Your task to perform on an android device: See recent photos Image 0: 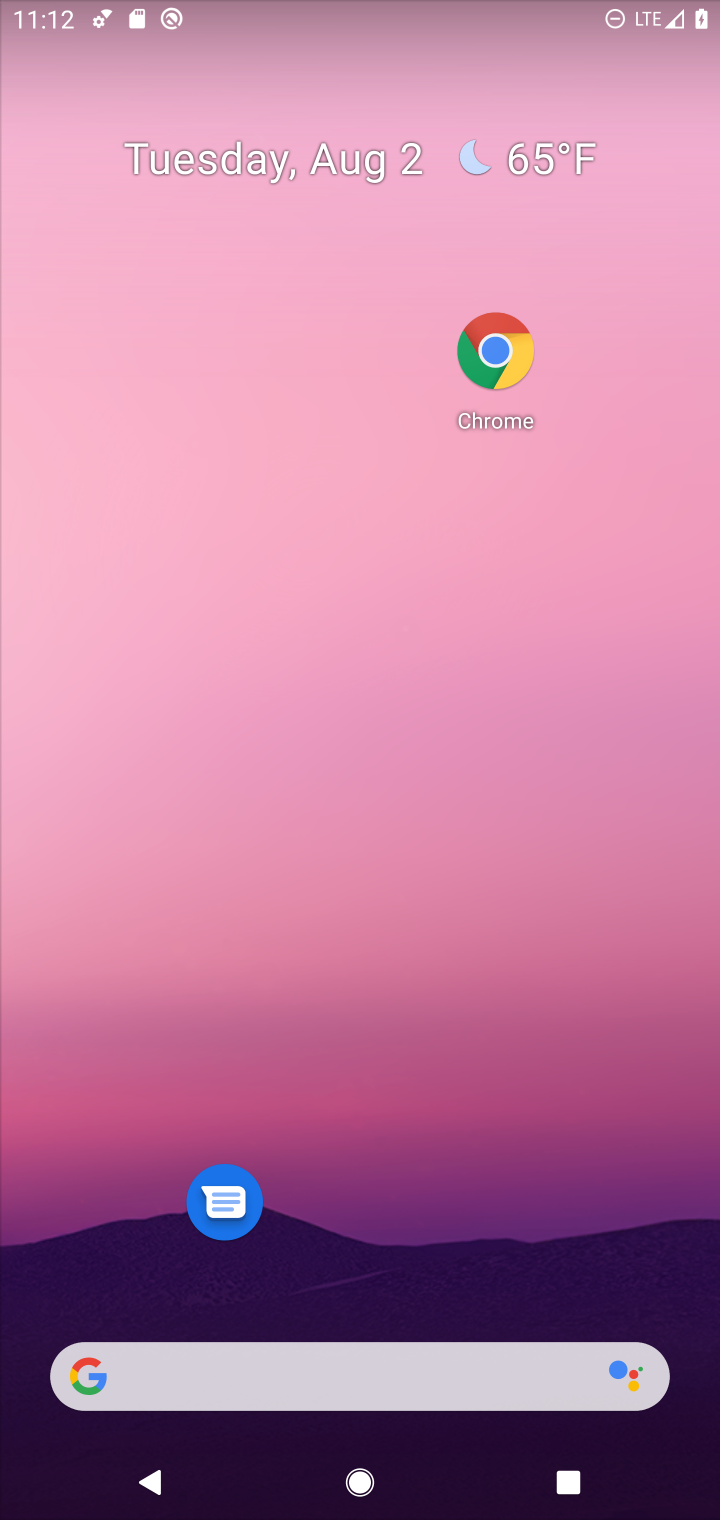
Step 0: press home button
Your task to perform on an android device: See recent photos Image 1: 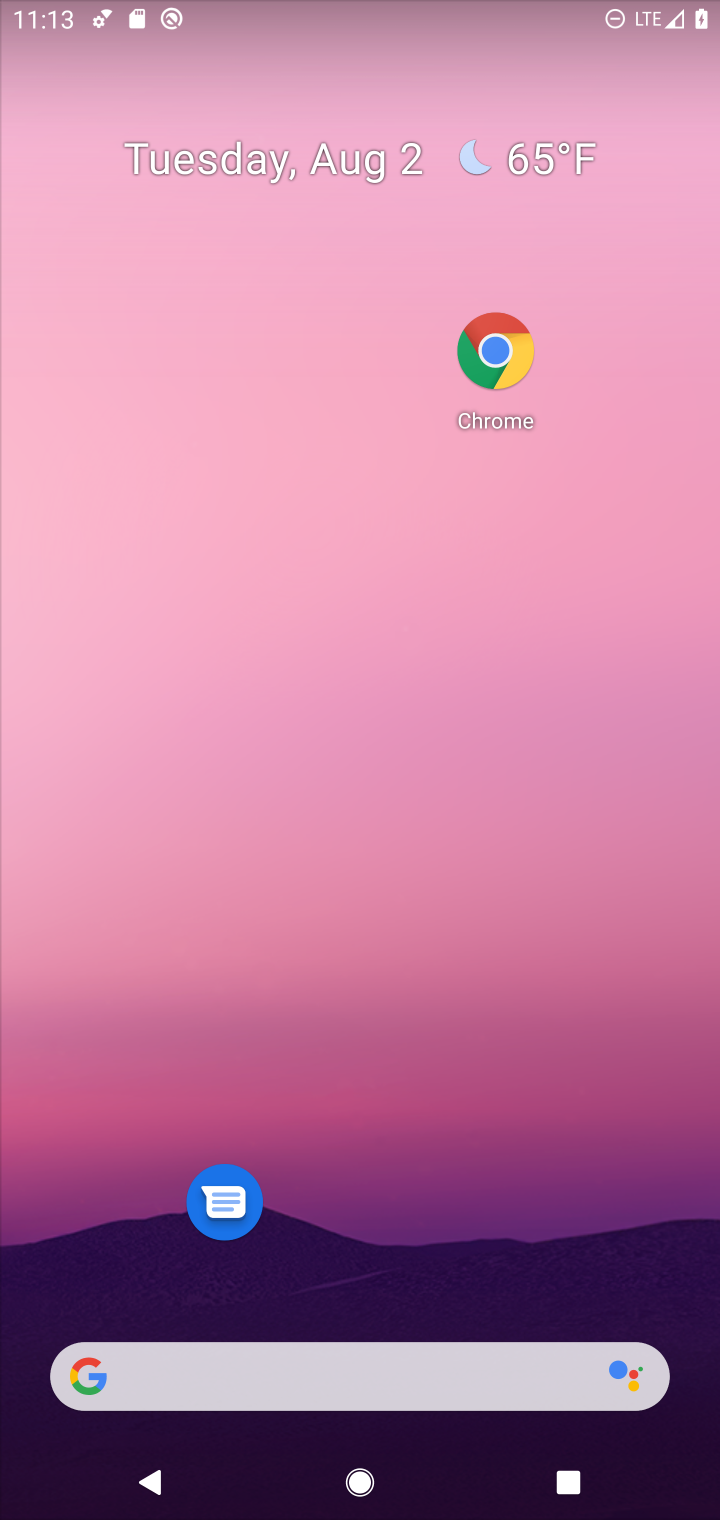
Step 1: drag from (389, 1068) to (396, 7)
Your task to perform on an android device: See recent photos Image 2: 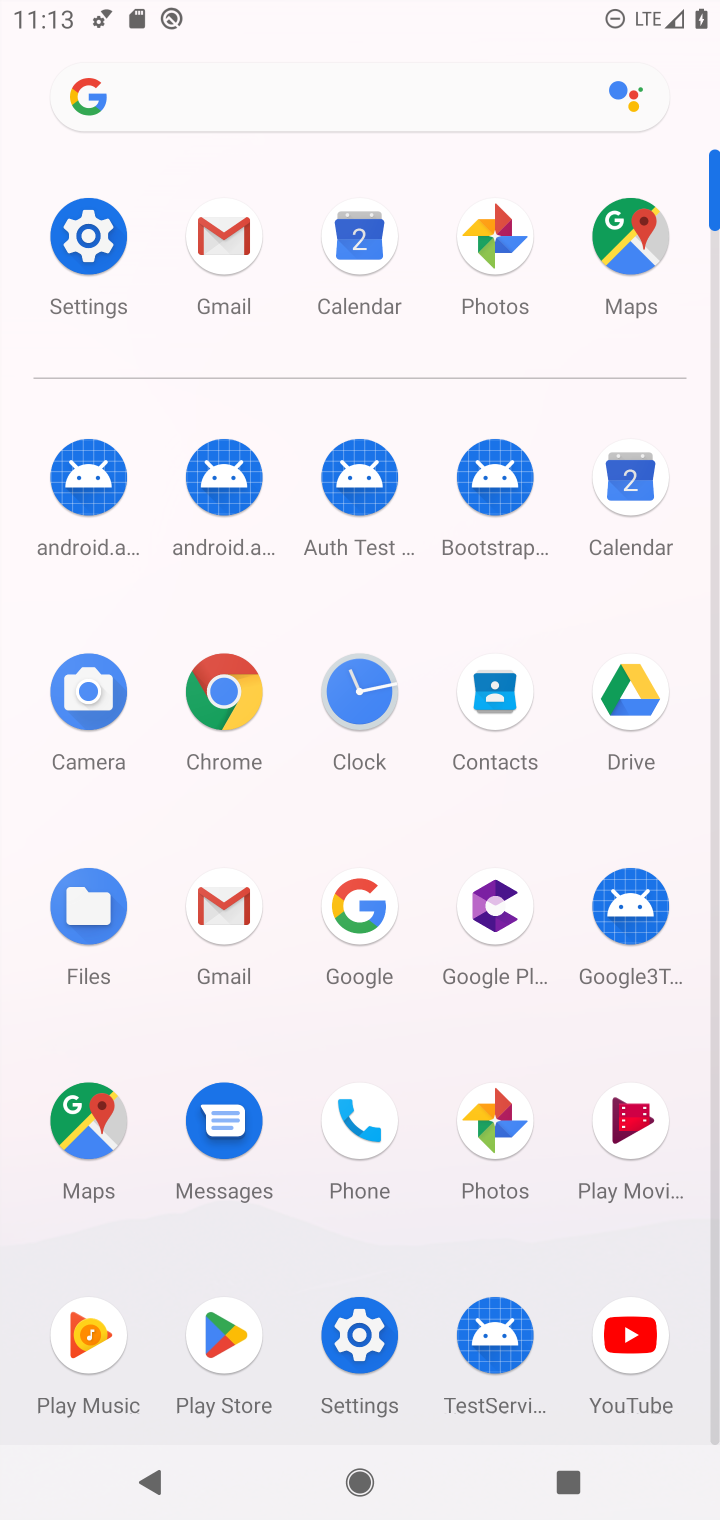
Step 2: click (496, 248)
Your task to perform on an android device: See recent photos Image 3: 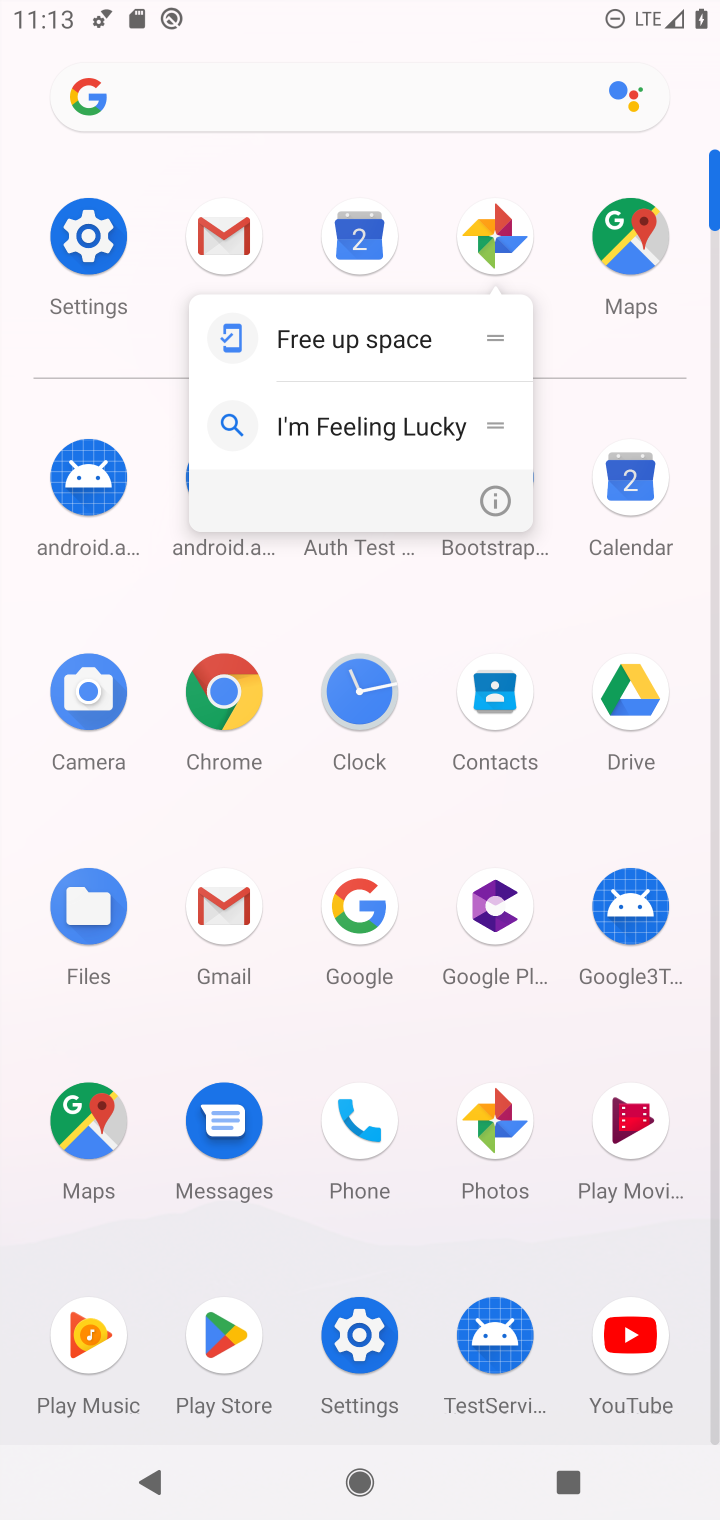
Step 3: click (496, 248)
Your task to perform on an android device: See recent photos Image 4: 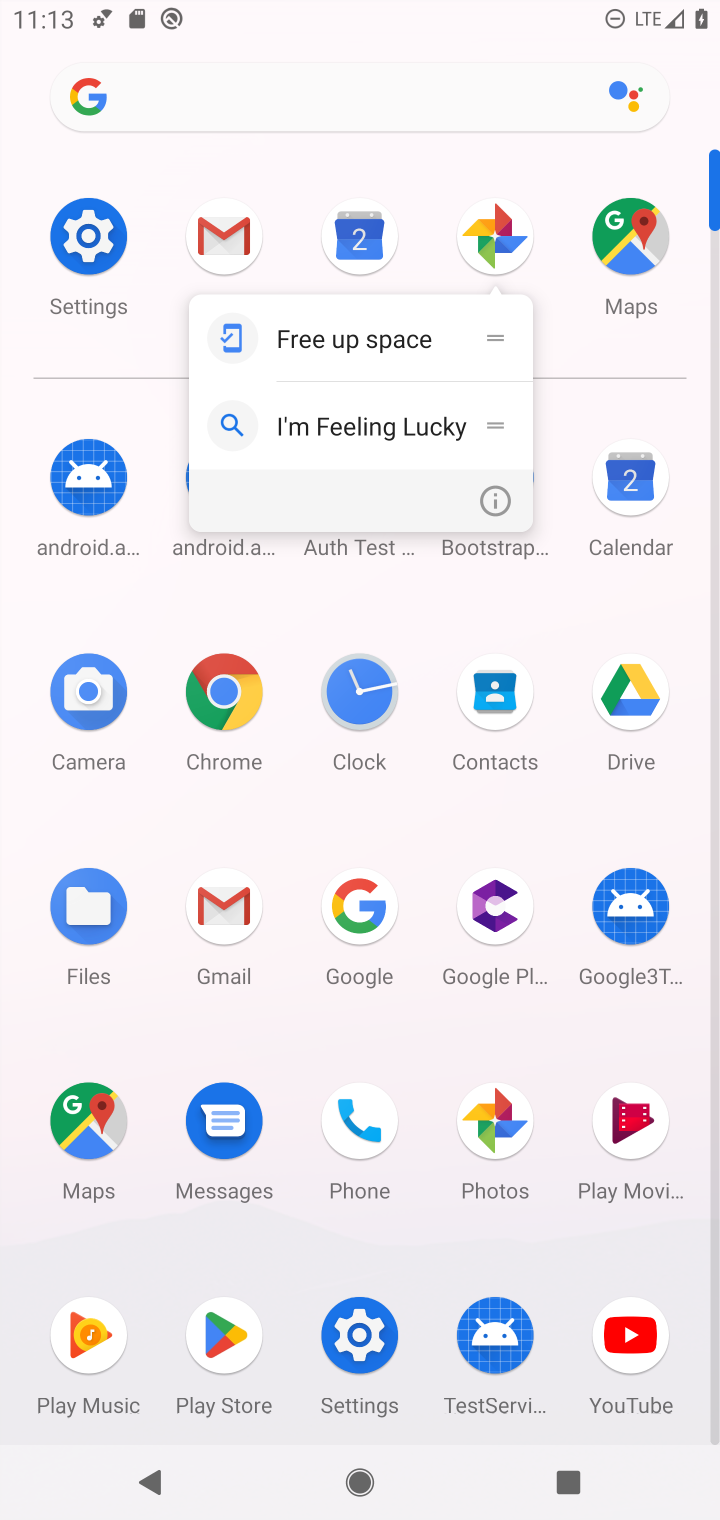
Step 4: click (496, 248)
Your task to perform on an android device: See recent photos Image 5: 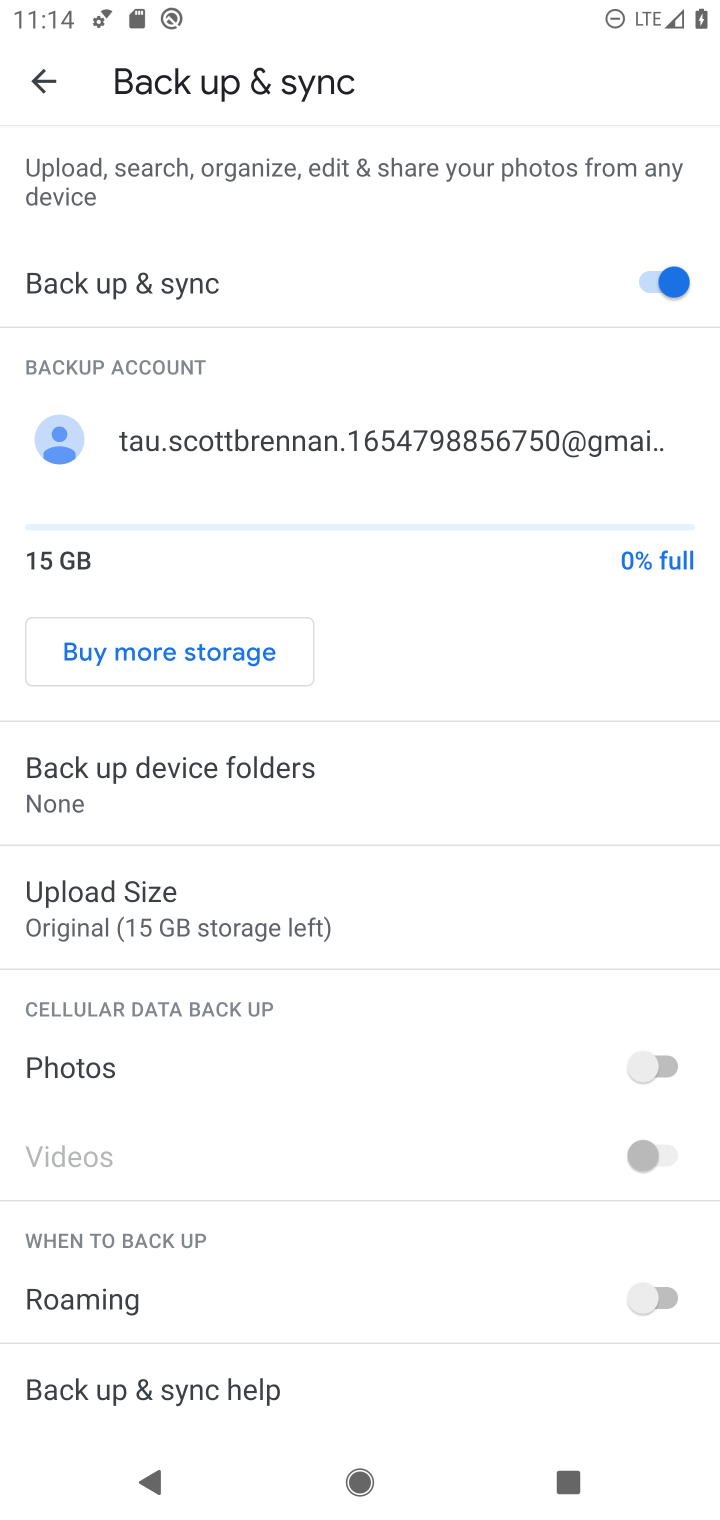
Step 5: click (45, 93)
Your task to perform on an android device: See recent photos Image 6: 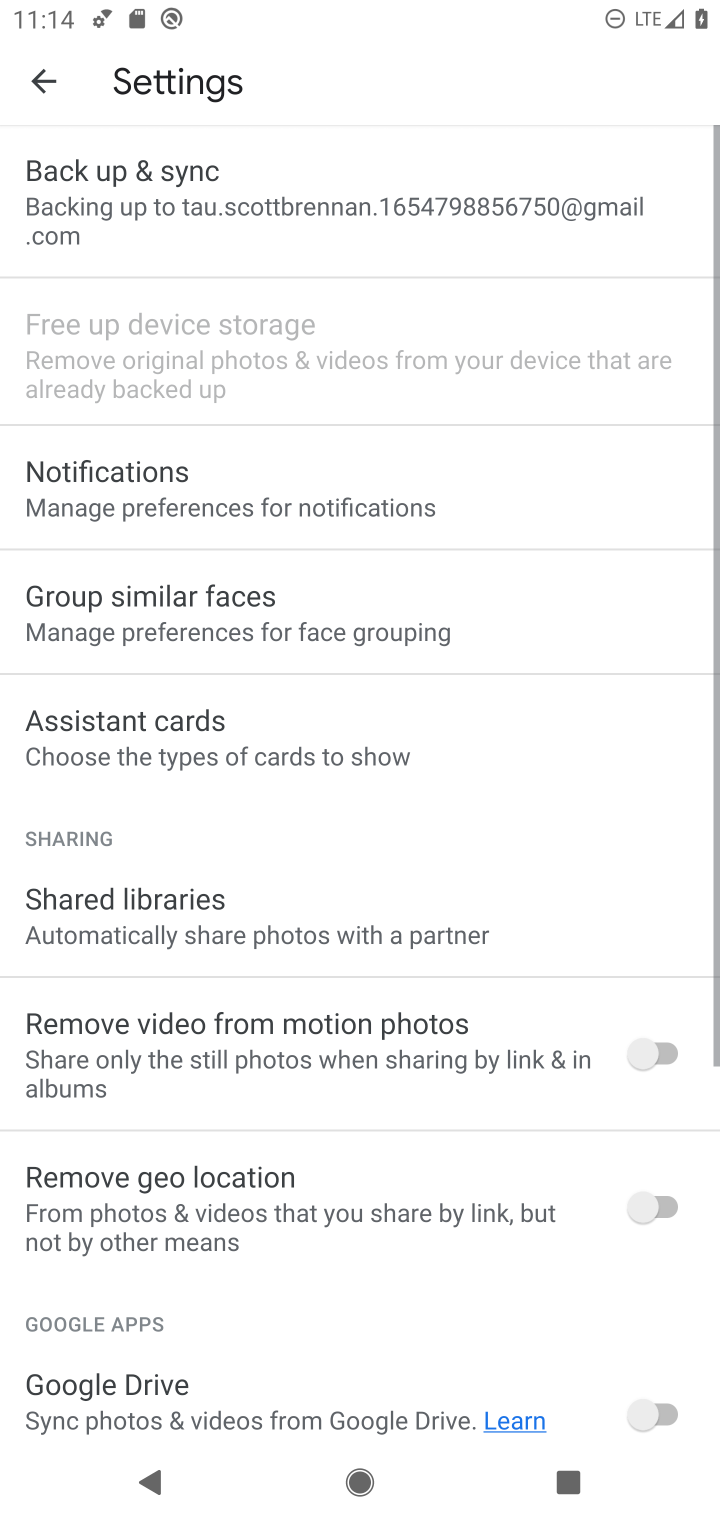
Step 6: click (45, 93)
Your task to perform on an android device: See recent photos Image 7: 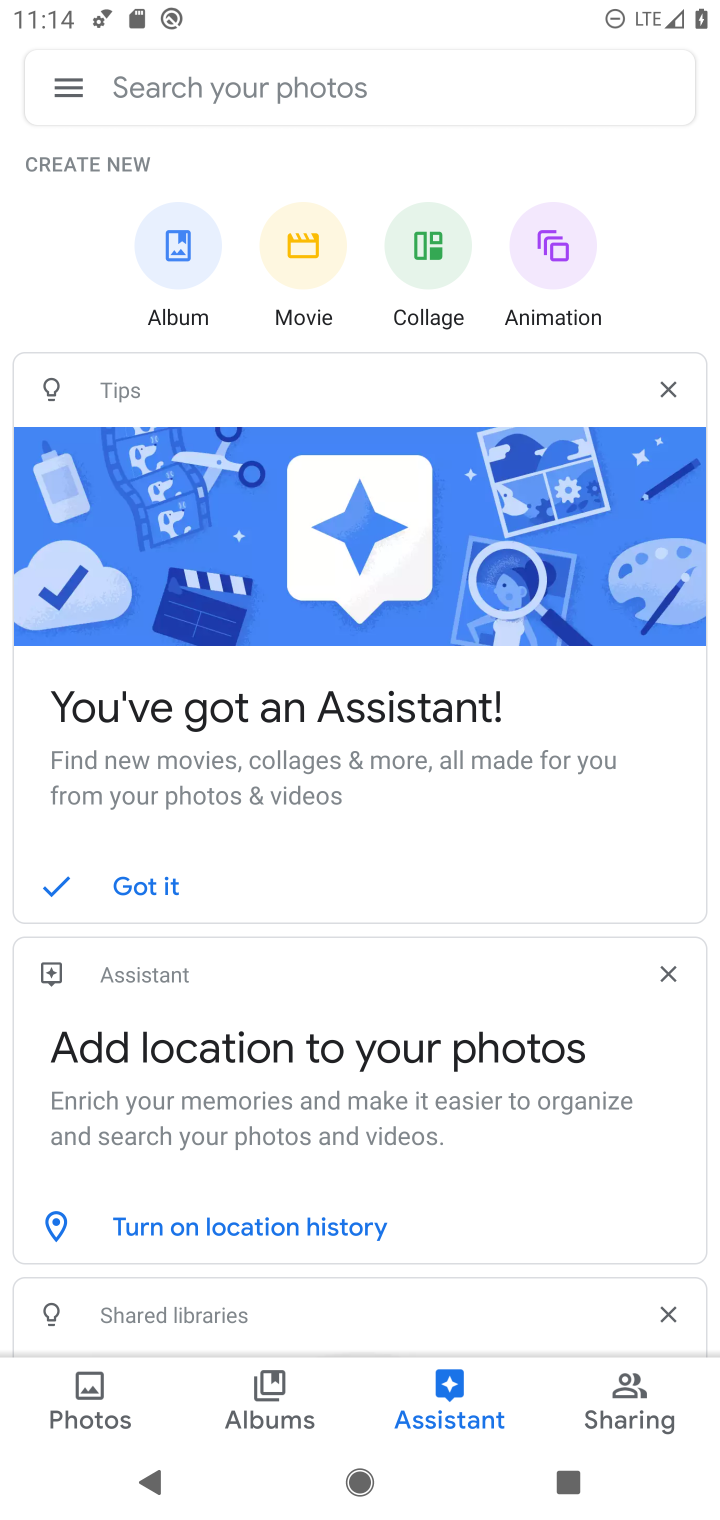
Step 7: click (59, 94)
Your task to perform on an android device: See recent photos Image 8: 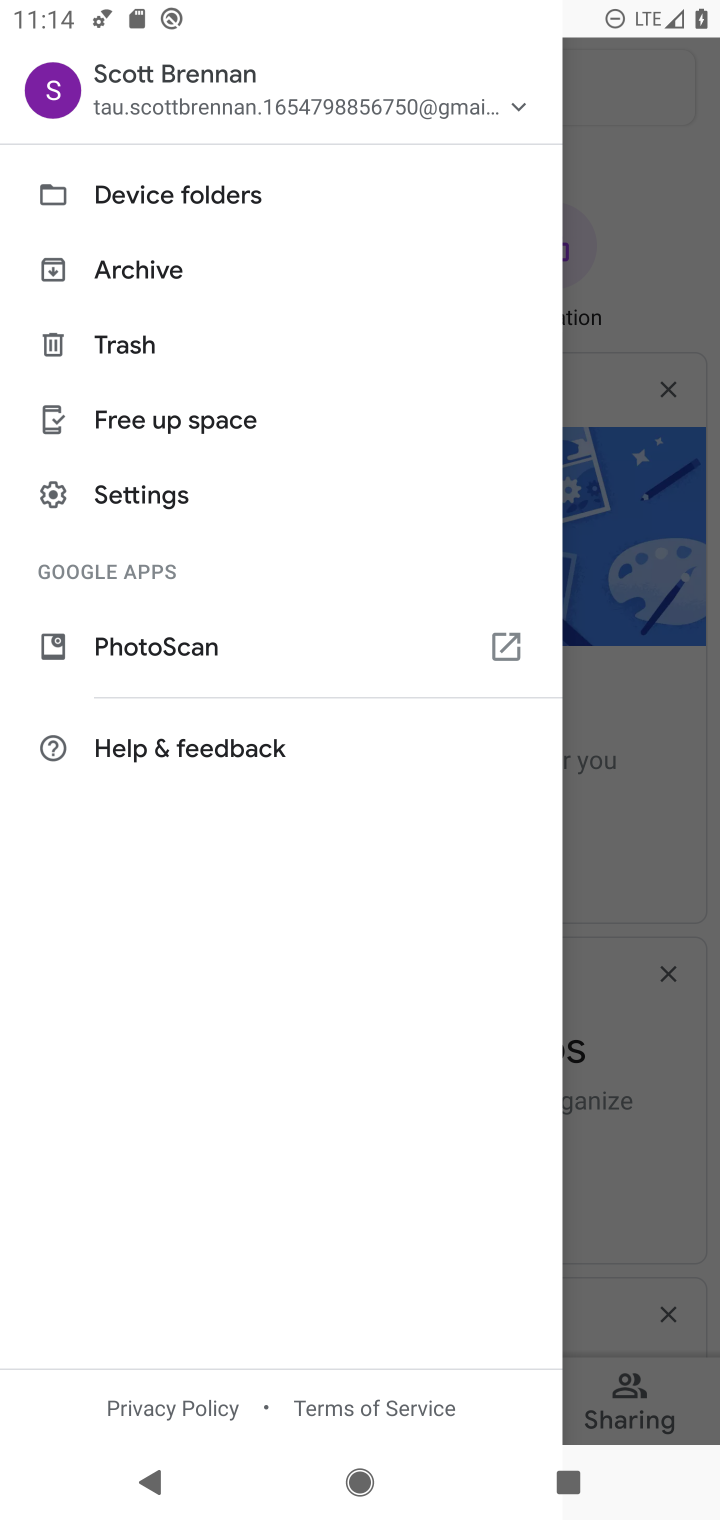
Step 8: task complete